Your task to perform on an android device: Do I have any events this weekend? Image 0: 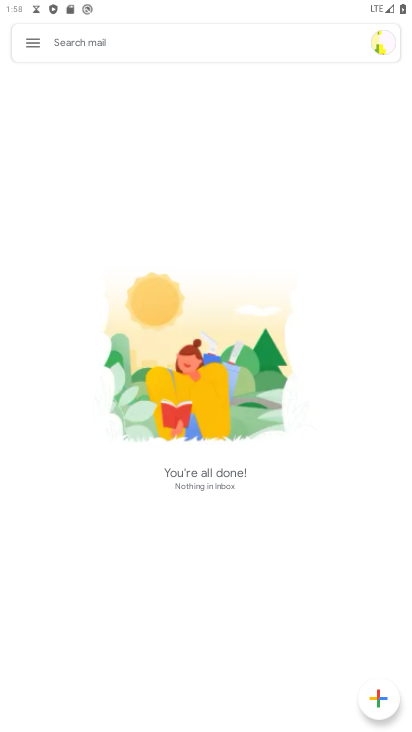
Step 0: press home button
Your task to perform on an android device: Do I have any events this weekend? Image 1: 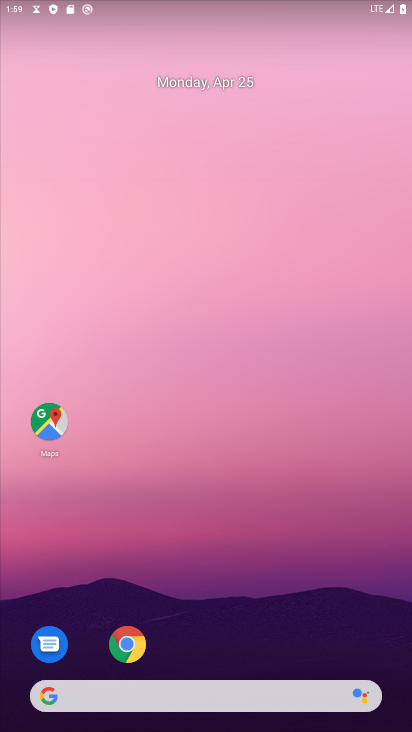
Step 1: drag from (353, 602) to (374, 70)
Your task to perform on an android device: Do I have any events this weekend? Image 2: 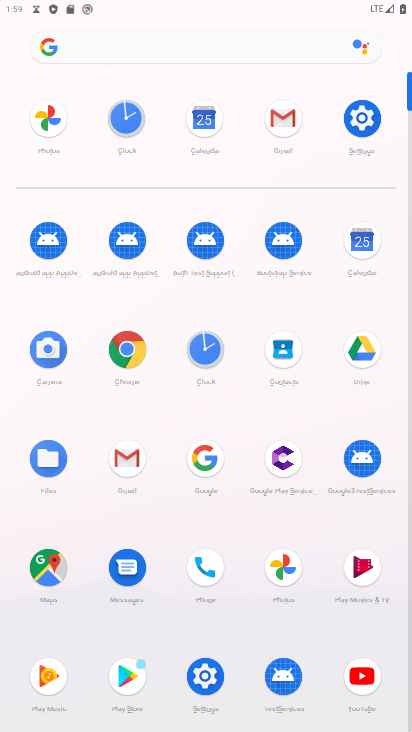
Step 2: click (365, 246)
Your task to perform on an android device: Do I have any events this weekend? Image 3: 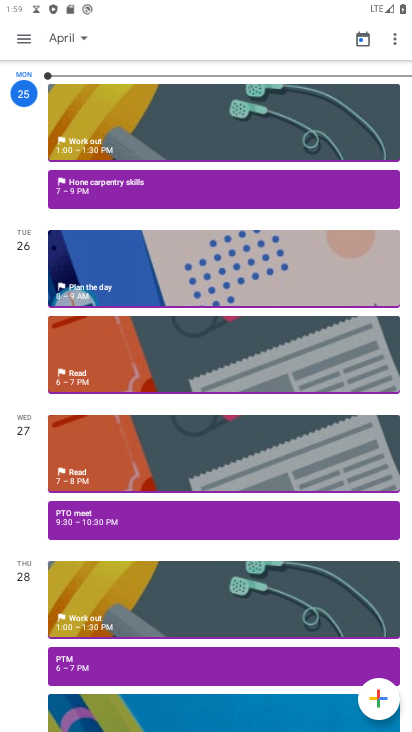
Step 3: drag from (120, 593) to (130, 179)
Your task to perform on an android device: Do I have any events this weekend? Image 4: 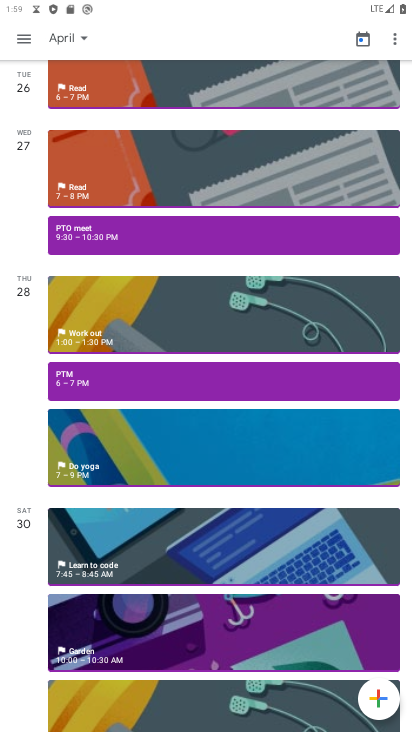
Step 4: drag from (220, 637) to (226, 403)
Your task to perform on an android device: Do I have any events this weekend? Image 5: 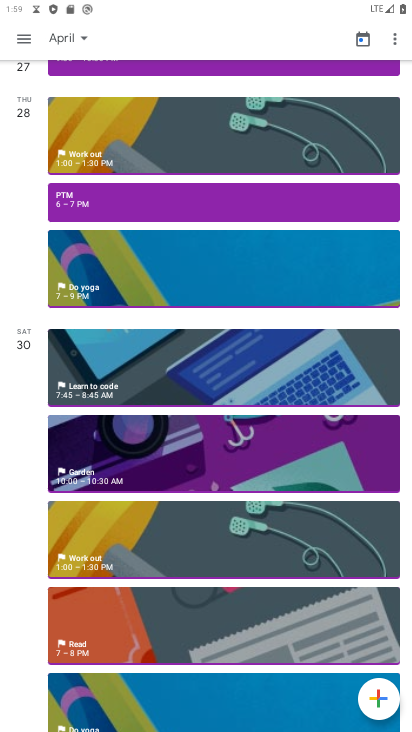
Step 5: click (174, 448)
Your task to perform on an android device: Do I have any events this weekend? Image 6: 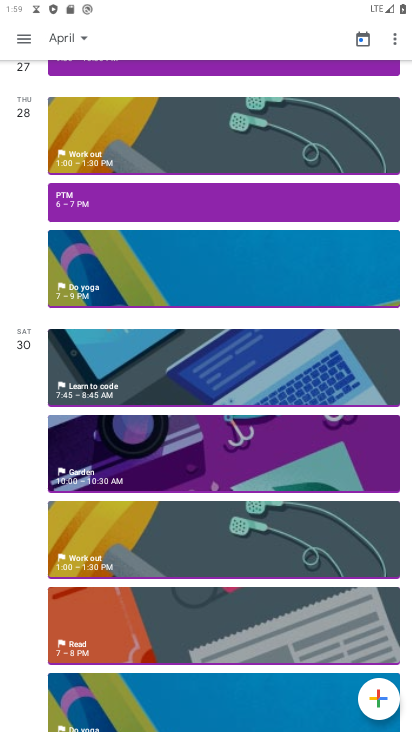
Step 6: click (192, 462)
Your task to perform on an android device: Do I have any events this weekend? Image 7: 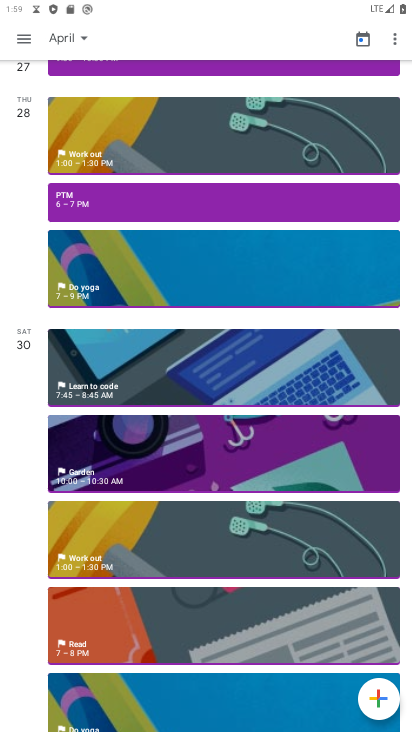
Step 7: click (360, 450)
Your task to perform on an android device: Do I have any events this weekend? Image 8: 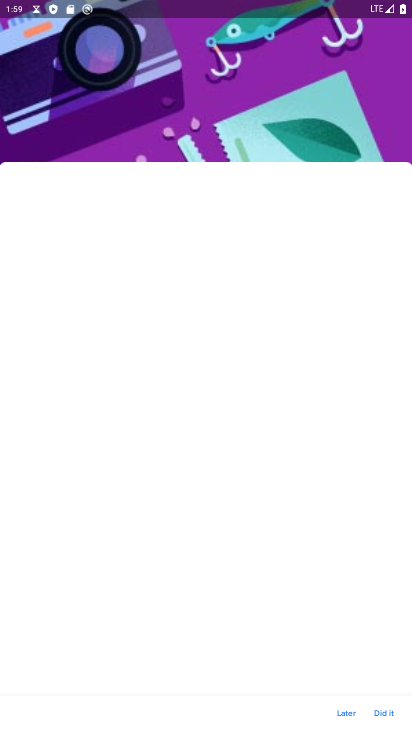
Step 8: click (76, 453)
Your task to perform on an android device: Do I have any events this weekend? Image 9: 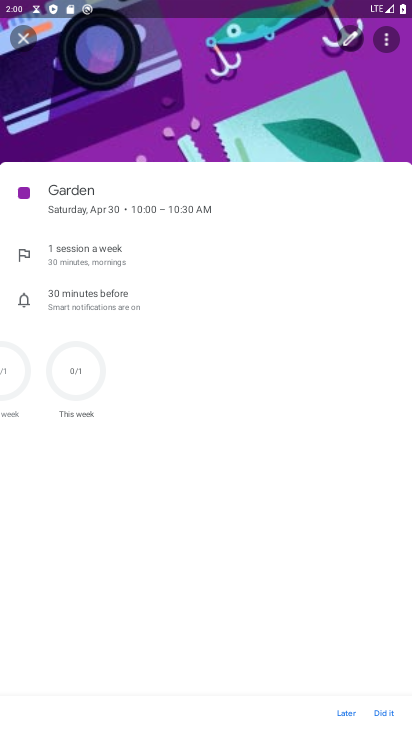
Step 9: task complete